Your task to perform on an android device: snooze an email in the gmail app Image 0: 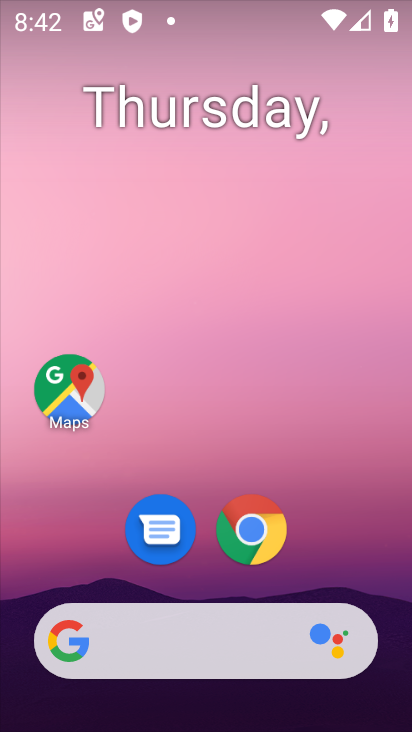
Step 0: drag from (231, 724) to (217, 158)
Your task to perform on an android device: snooze an email in the gmail app Image 1: 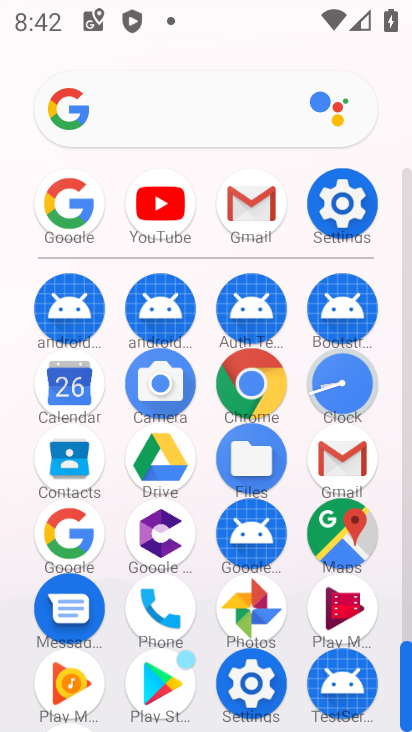
Step 1: click (342, 455)
Your task to perform on an android device: snooze an email in the gmail app Image 2: 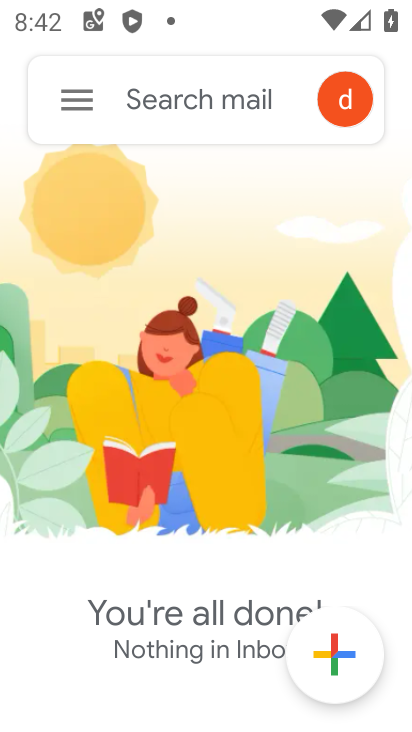
Step 2: task complete